Your task to perform on an android device: toggle notifications settings in the gmail app Image 0: 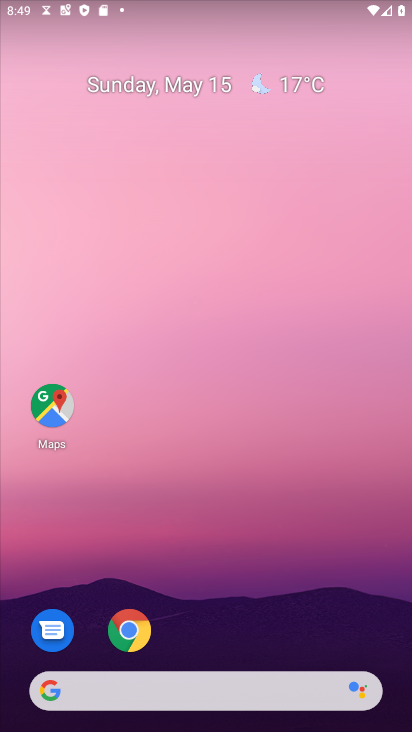
Step 0: drag from (336, 289) to (343, 12)
Your task to perform on an android device: toggle notifications settings in the gmail app Image 1: 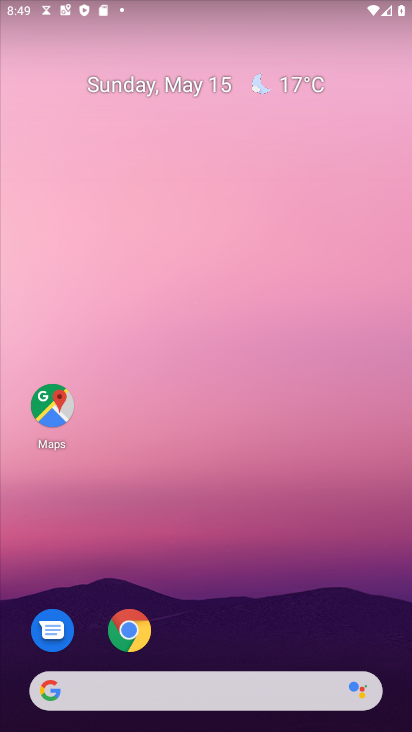
Step 1: drag from (336, 580) to (227, 6)
Your task to perform on an android device: toggle notifications settings in the gmail app Image 2: 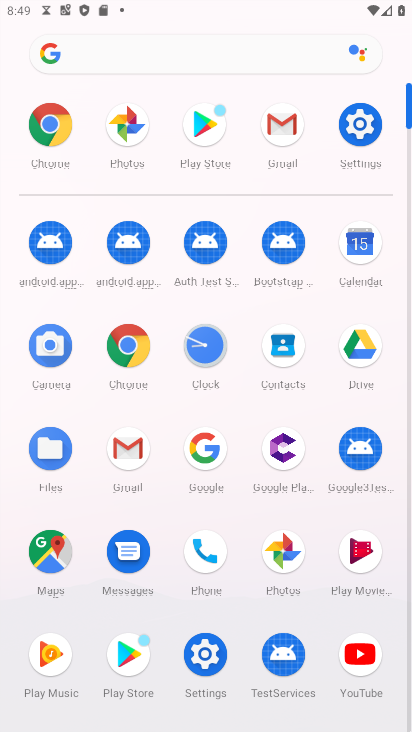
Step 2: click (293, 196)
Your task to perform on an android device: toggle notifications settings in the gmail app Image 3: 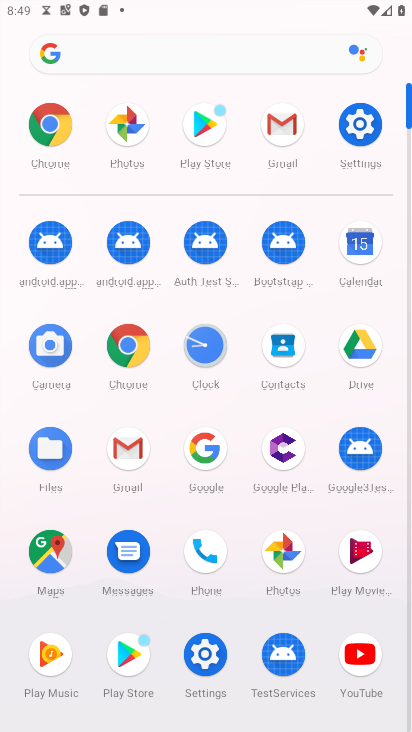
Step 3: click (298, 116)
Your task to perform on an android device: toggle notifications settings in the gmail app Image 4: 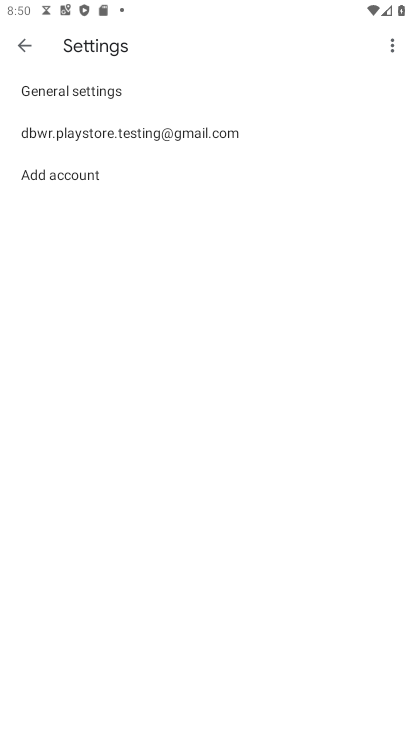
Step 4: click (167, 140)
Your task to perform on an android device: toggle notifications settings in the gmail app Image 5: 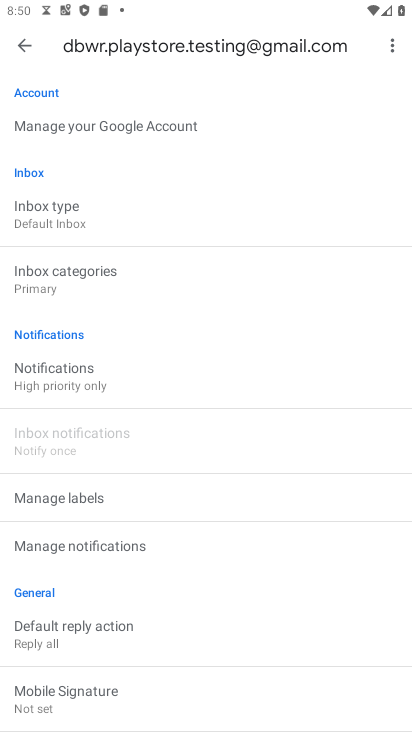
Step 5: click (34, 378)
Your task to perform on an android device: toggle notifications settings in the gmail app Image 6: 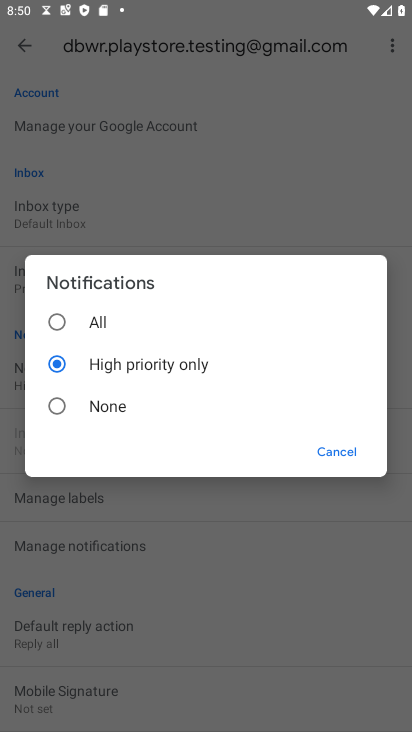
Step 6: click (64, 321)
Your task to perform on an android device: toggle notifications settings in the gmail app Image 7: 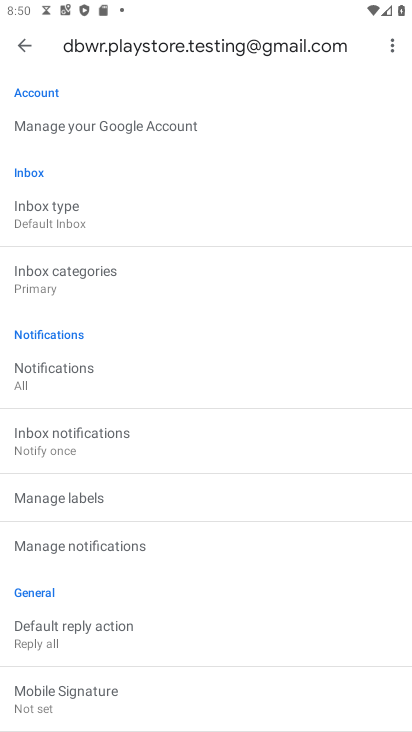
Step 7: task complete